Your task to perform on an android device: Clear the cart on bestbuy. Search for acer predator on bestbuy, select the first entry, add it to the cart, then select checkout. Image 0: 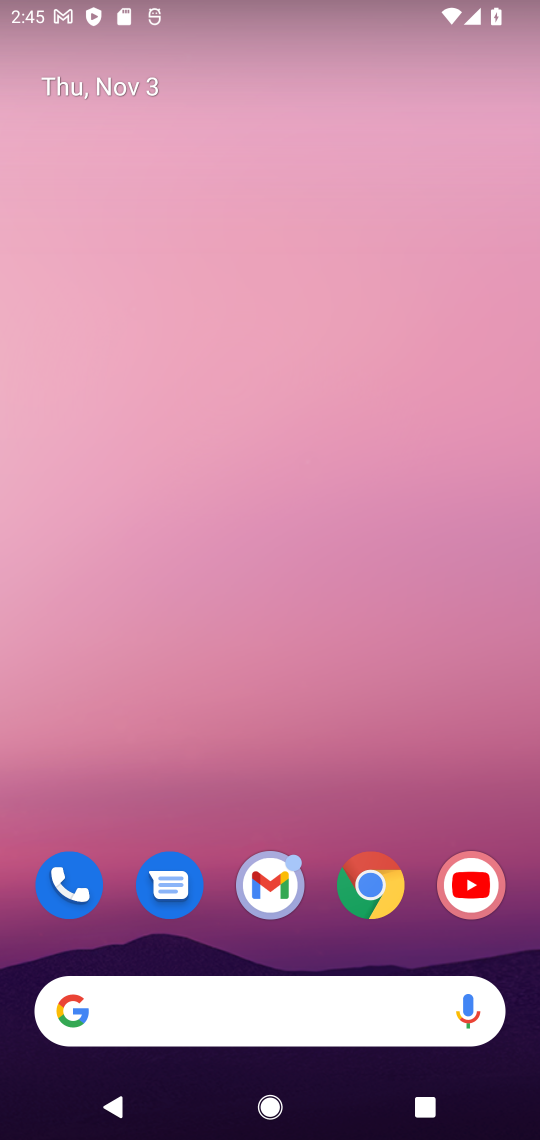
Step 0: press home button
Your task to perform on an android device: Clear the cart on bestbuy. Search for acer predator on bestbuy, select the first entry, add it to the cart, then select checkout. Image 1: 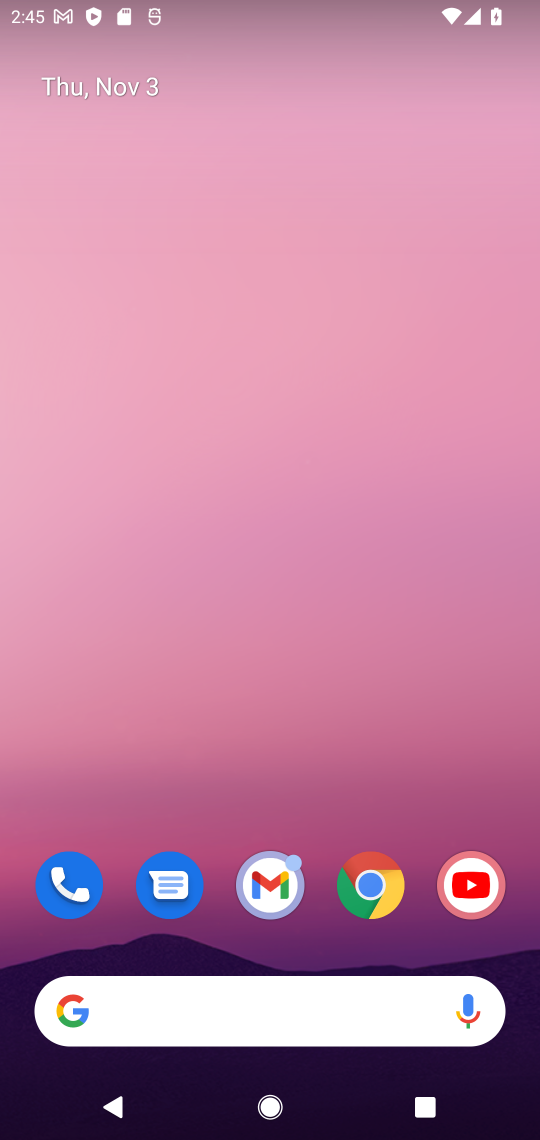
Step 1: drag from (262, 790) to (444, 11)
Your task to perform on an android device: Clear the cart on bestbuy. Search for acer predator on bestbuy, select the first entry, add it to the cart, then select checkout. Image 2: 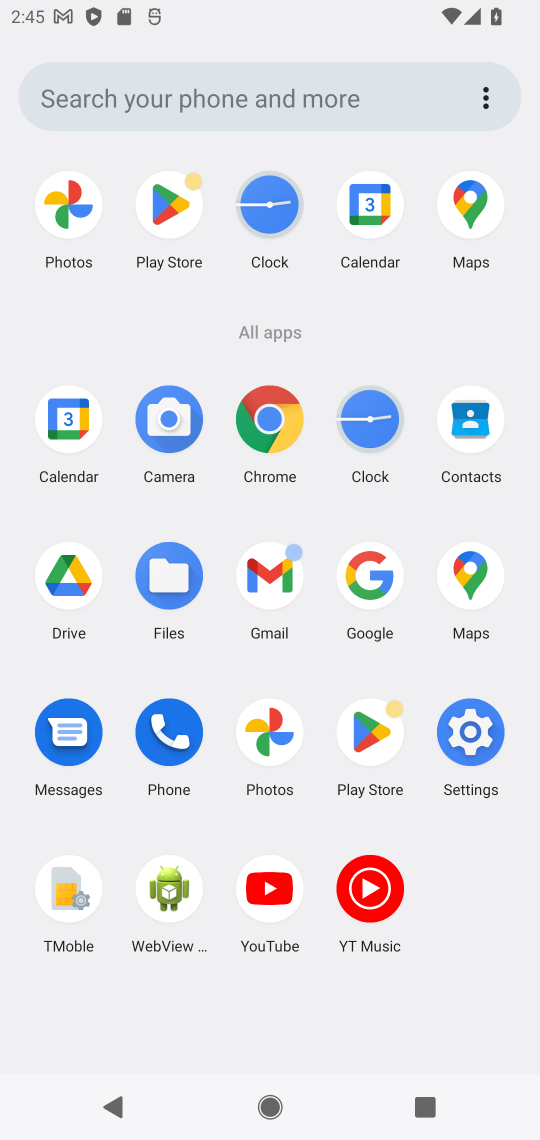
Step 2: click (267, 412)
Your task to perform on an android device: Clear the cart on bestbuy. Search for acer predator on bestbuy, select the first entry, add it to the cart, then select checkout. Image 3: 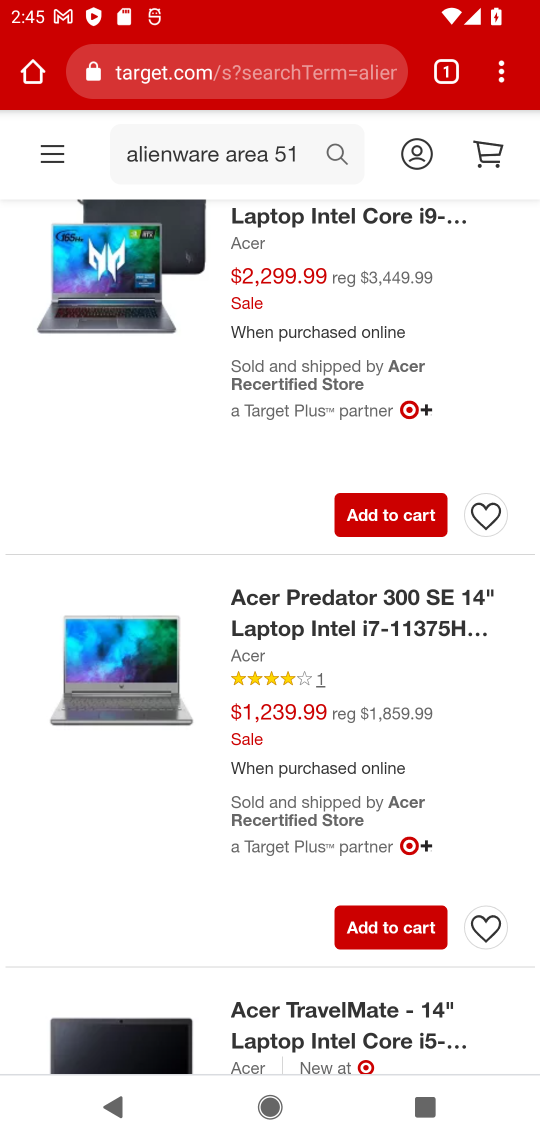
Step 3: click (196, 74)
Your task to perform on an android device: Clear the cart on bestbuy. Search for acer predator on bestbuy, select the first entry, add it to the cart, then select checkout. Image 4: 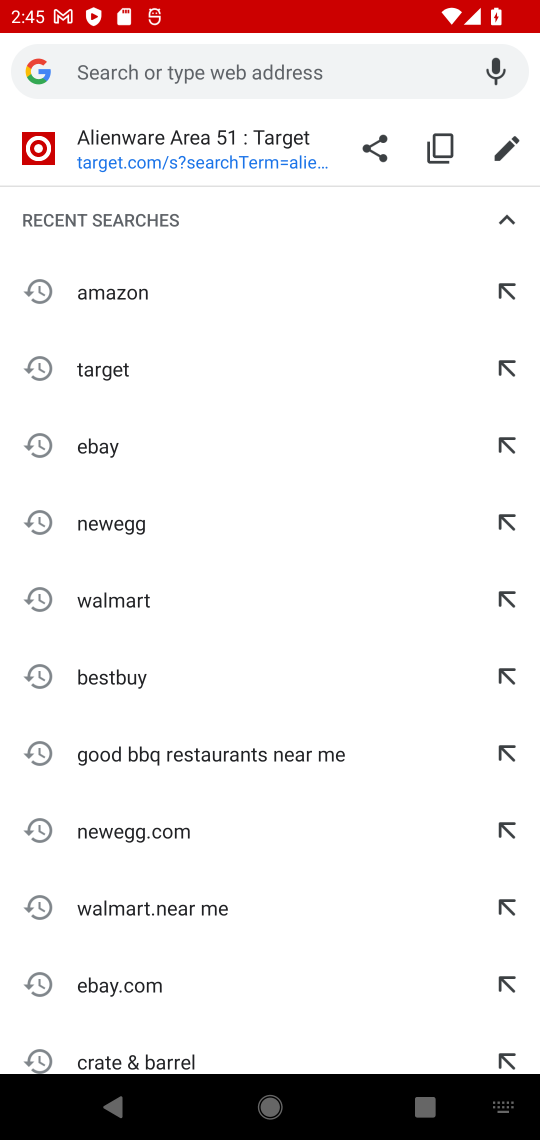
Step 4: type "bestbuy"
Your task to perform on an android device: Clear the cart on bestbuy. Search for acer predator on bestbuy, select the first entry, add it to the cart, then select checkout. Image 5: 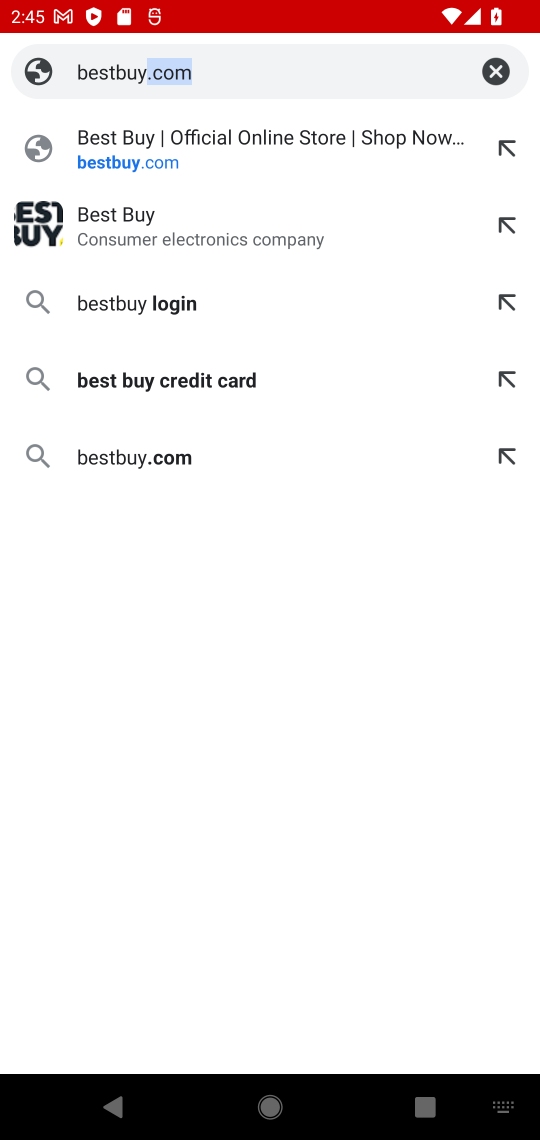
Step 5: click (152, 157)
Your task to perform on an android device: Clear the cart on bestbuy. Search for acer predator on bestbuy, select the first entry, add it to the cart, then select checkout. Image 6: 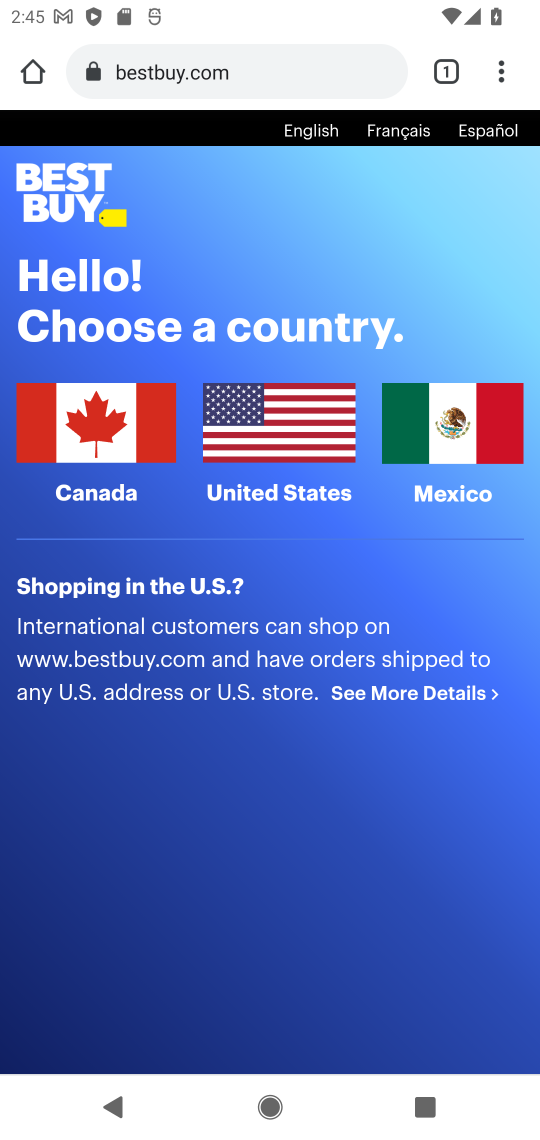
Step 6: click (289, 426)
Your task to perform on an android device: Clear the cart on bestbuy. Search for acer predator on bestbuy, select the first entry, add it to the cart, then select checkout. Image 7: 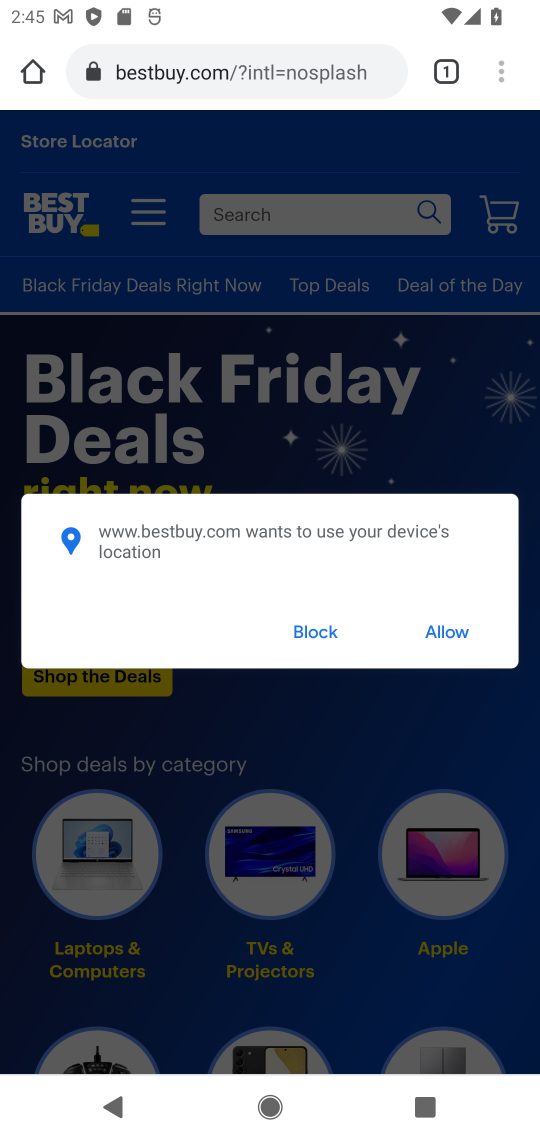
Step 7: click (454, 634)
Your task to perform on an android device: Clear the cart on bestbuy. Search for acer predator on bestbuy, select the first entry, add it to the cart, then select checkout. Image 8: 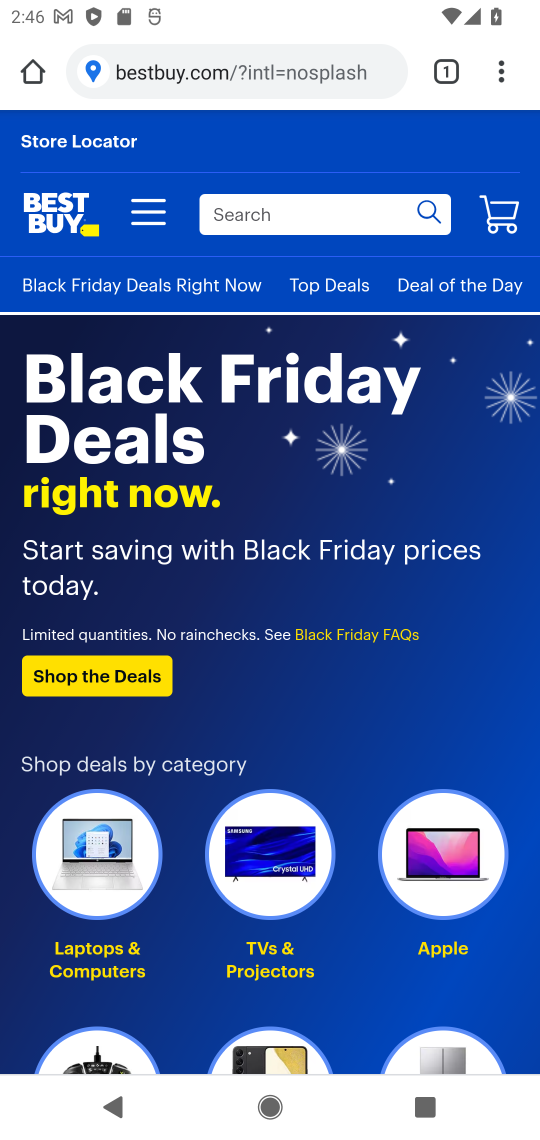
Step 8: click (271, 208)
Your task to perform on an android device: Clear the cart on bestbuy. Search for acer predator on bestbuy, select the first entry, add it to the cart, then select checkout. Image 9: 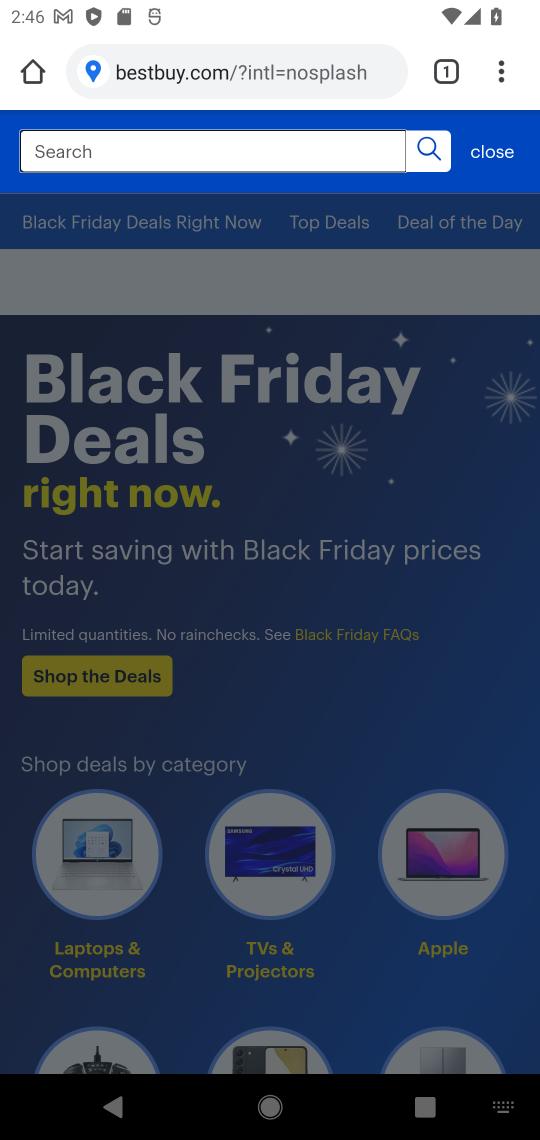
Step 9: type "acer predator"
Your task to perform on an android device: Clear the cart on bestbuy. Search for acer predator on bestbuy, select the first entry, add it to the cart, then select checkout. Image 10: 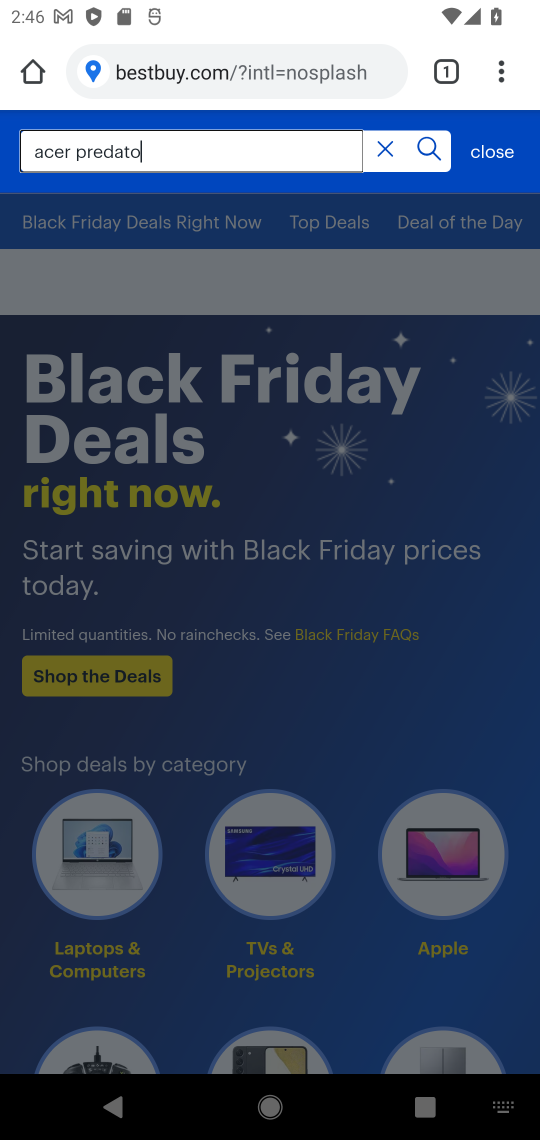
Step 10: type ""
Your task to perform on an android device: Clear the cart on bestbuy. Search for acer predator on bestbuy, select the first entry, add it to the cart, then select checkout. Image 11: 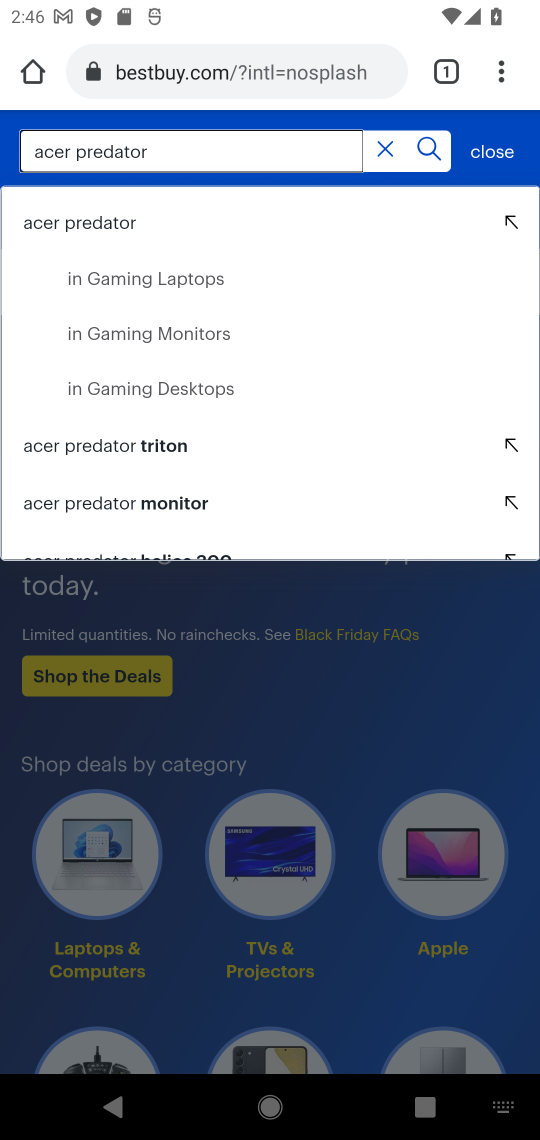
Step 11: click (101, 228)
Your task to perform on an android device: Clear the cart on bestbuy. Search for acer predator on bestbuy, select the first entry, add it to the cart, then select checkout. Image 12: 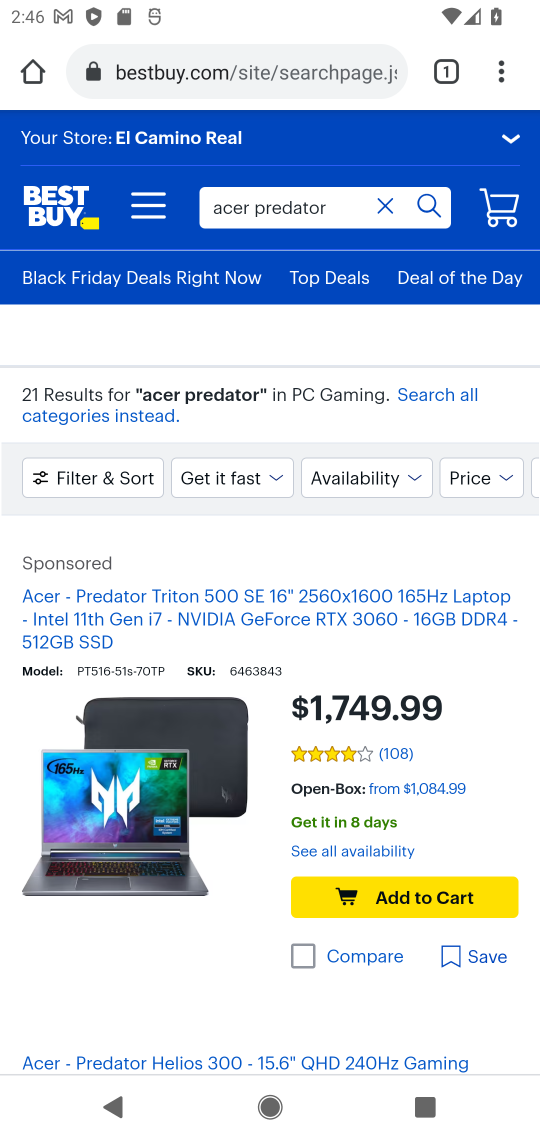
Step 12: click (428, 888)
Your task to perform on an android device: Clear the cart on bestbuy. Search for acer predator on bestbuy, select the first entry, add it to the cart, then select checkout. Image 13: 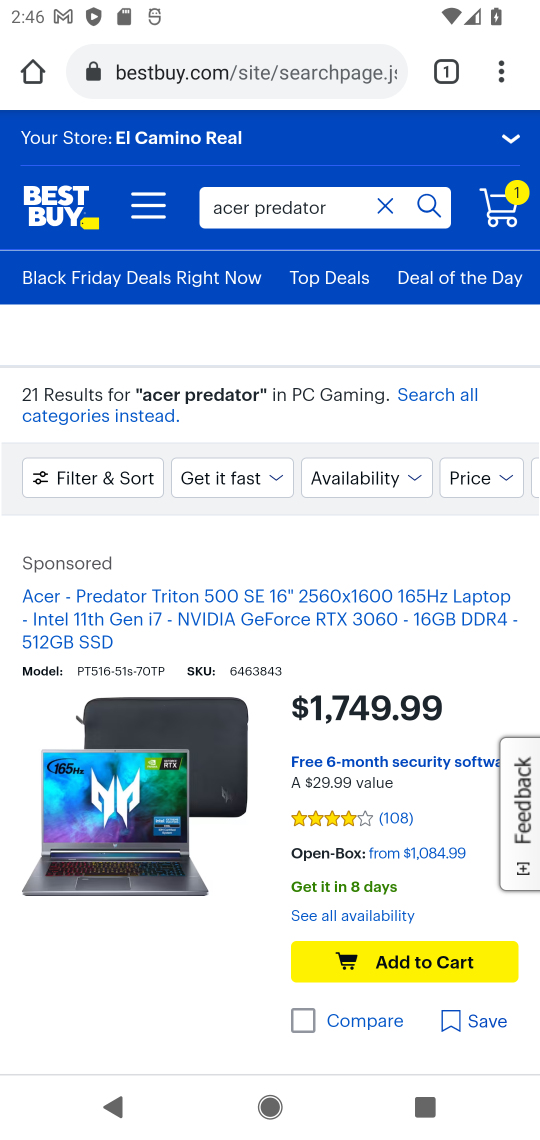
Step 13: click (513, 196)
Your task to perform on an android device: Clear the cart on bestbuy. Search for acer predator on bestbuy, select the first entry, add it to the cart, then select checkout. Image 14: 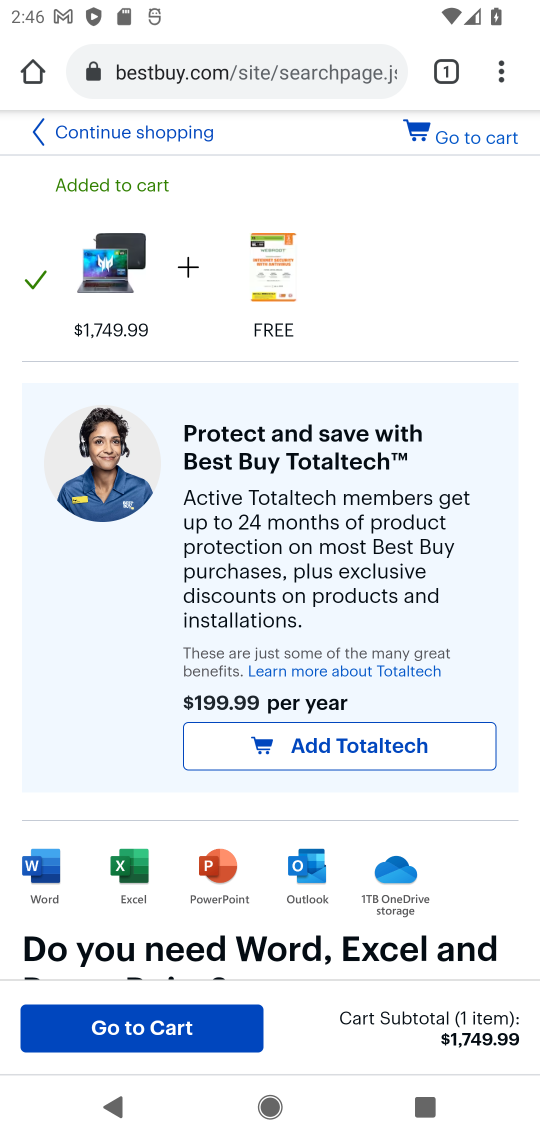
Step 14: click (129, 1041)
Your task to perform on an android device: Clear the cart on bestbuy. Search for acer predator on bestbuy, select the first entry, add it to the cart, then select checkout. Image 15: 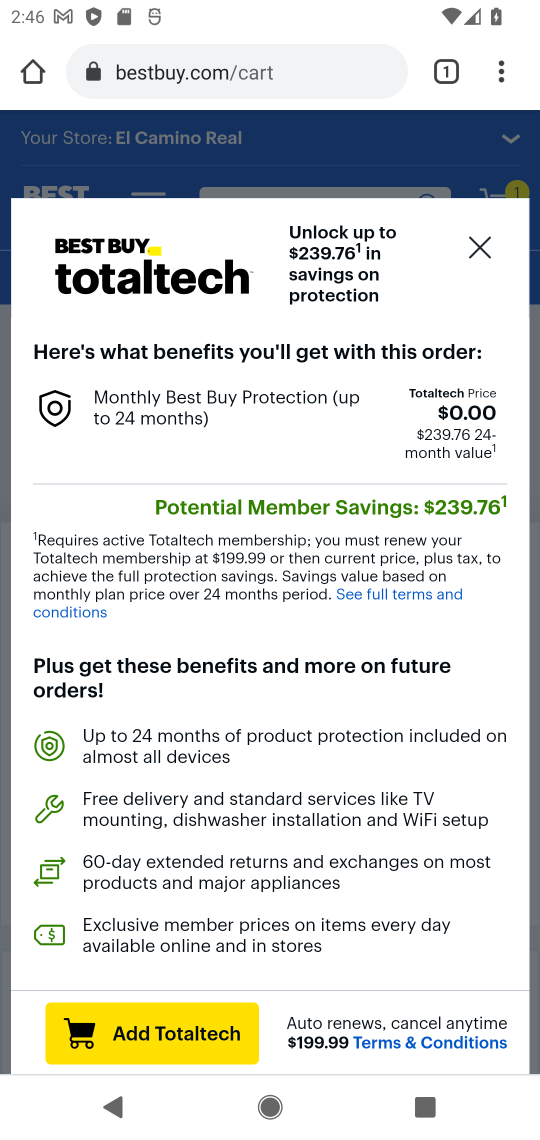
Step 15: click (133, 1041)
Your task to perform on an android device: Clear the cart on bestbuy. Search for acer predator on bestbuy, select the first entry, add it to the cart, then select checkout. Image 16: 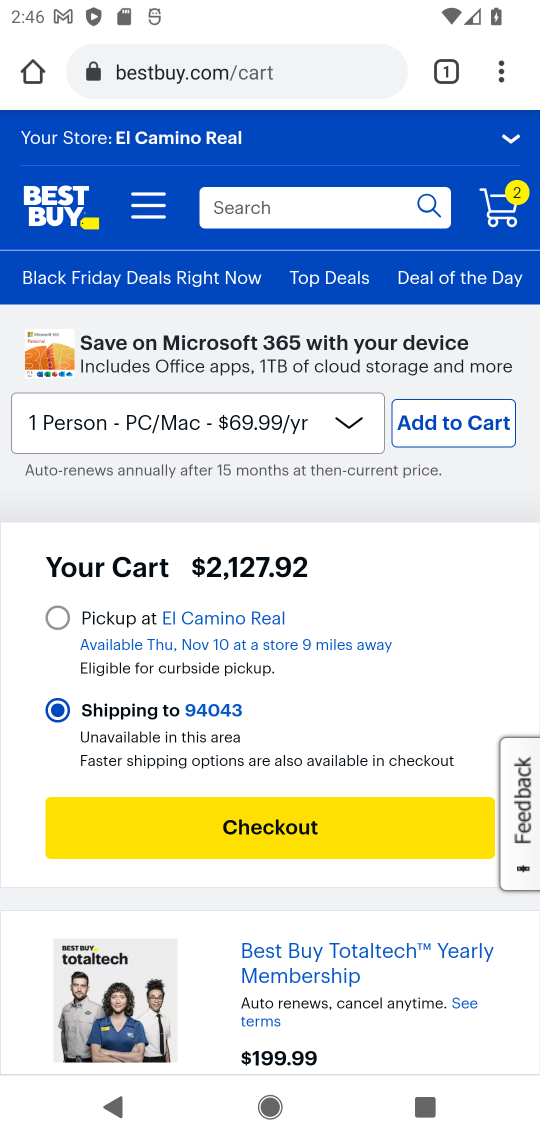
Step 16: click (250, 824)
Your task to perform on an android device: Clear the cart on bestbuy. Search for acer predator on bestbuy, select the first entry, add it to the cart, then select checkout. Image 17: 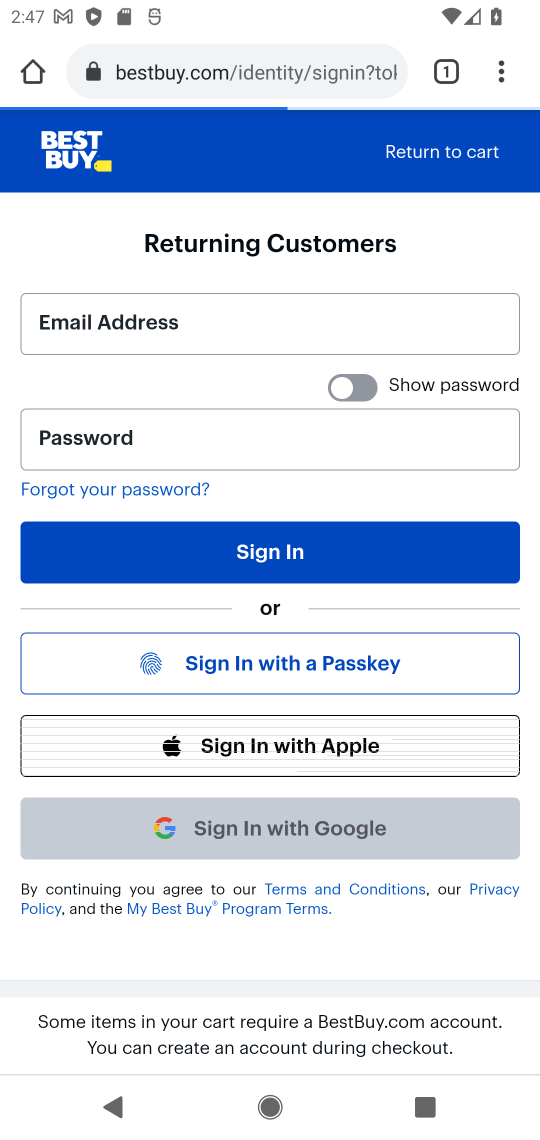
Step 17: task complete